Your task to perform on an android device: open app "Walmart Shopping & Grocery" Image 0: 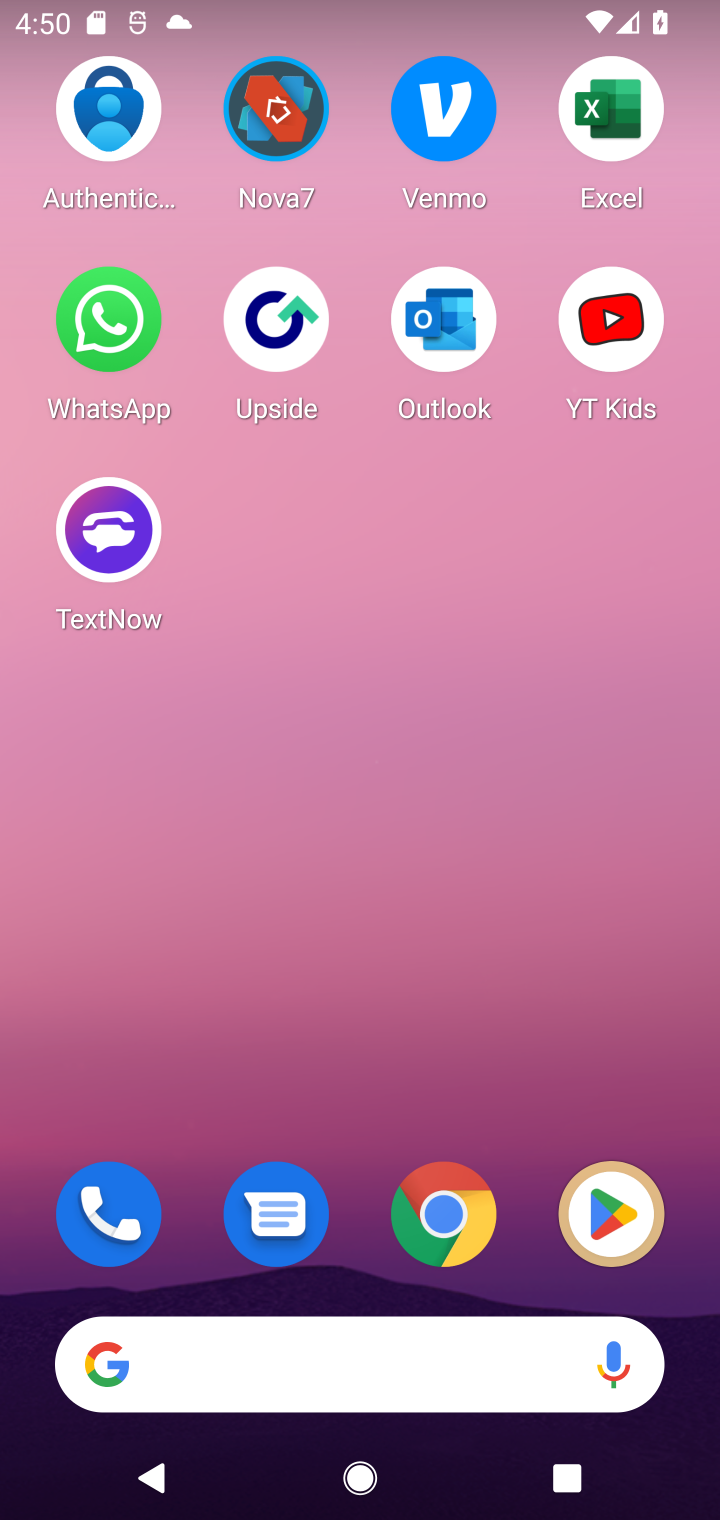
Step 0: click (618, 1224)
Your task to perform on an android device: open app "Walmart Shopping & Grocery" Image 1: 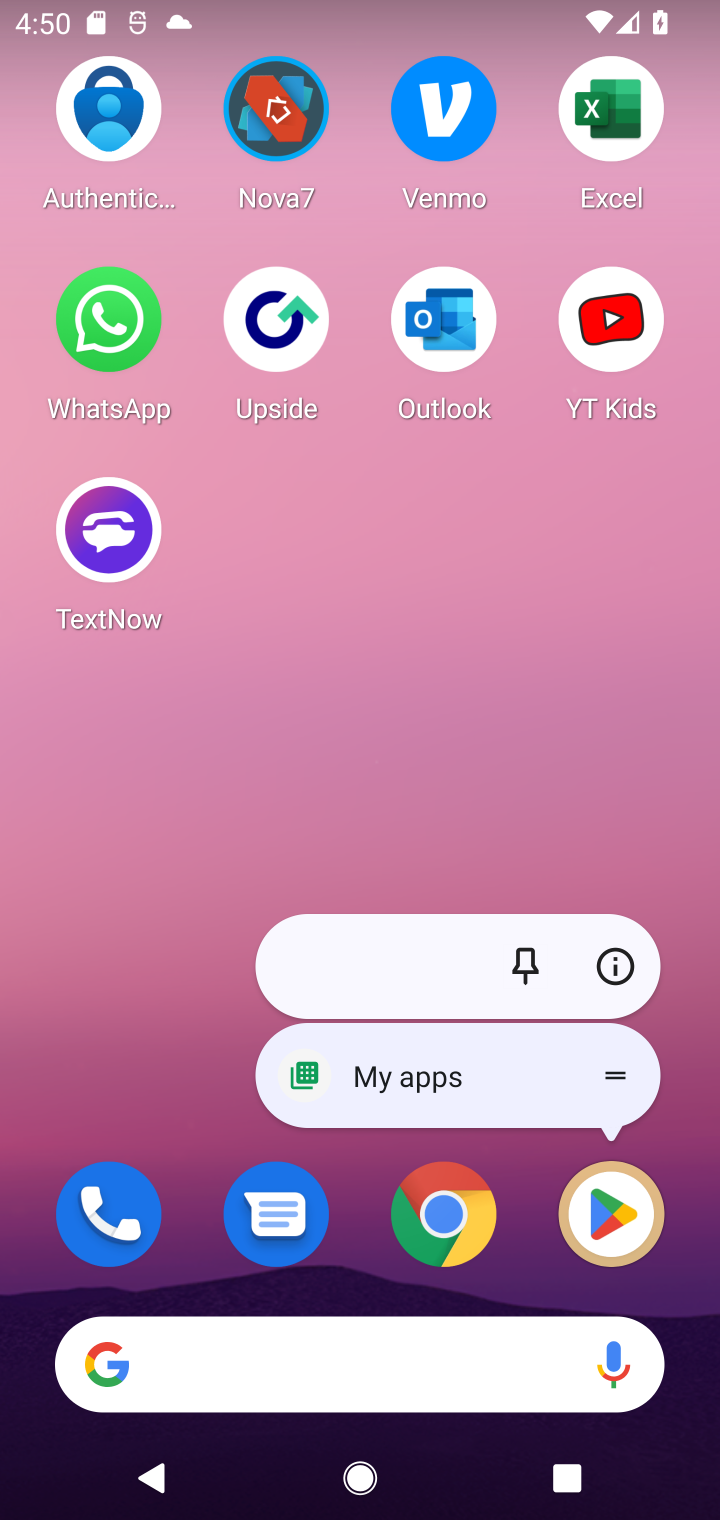
Step 1: click (618, 1224)
Your task to perform on an android device: open app "Walmart Shopping & Grocery" Image 2: 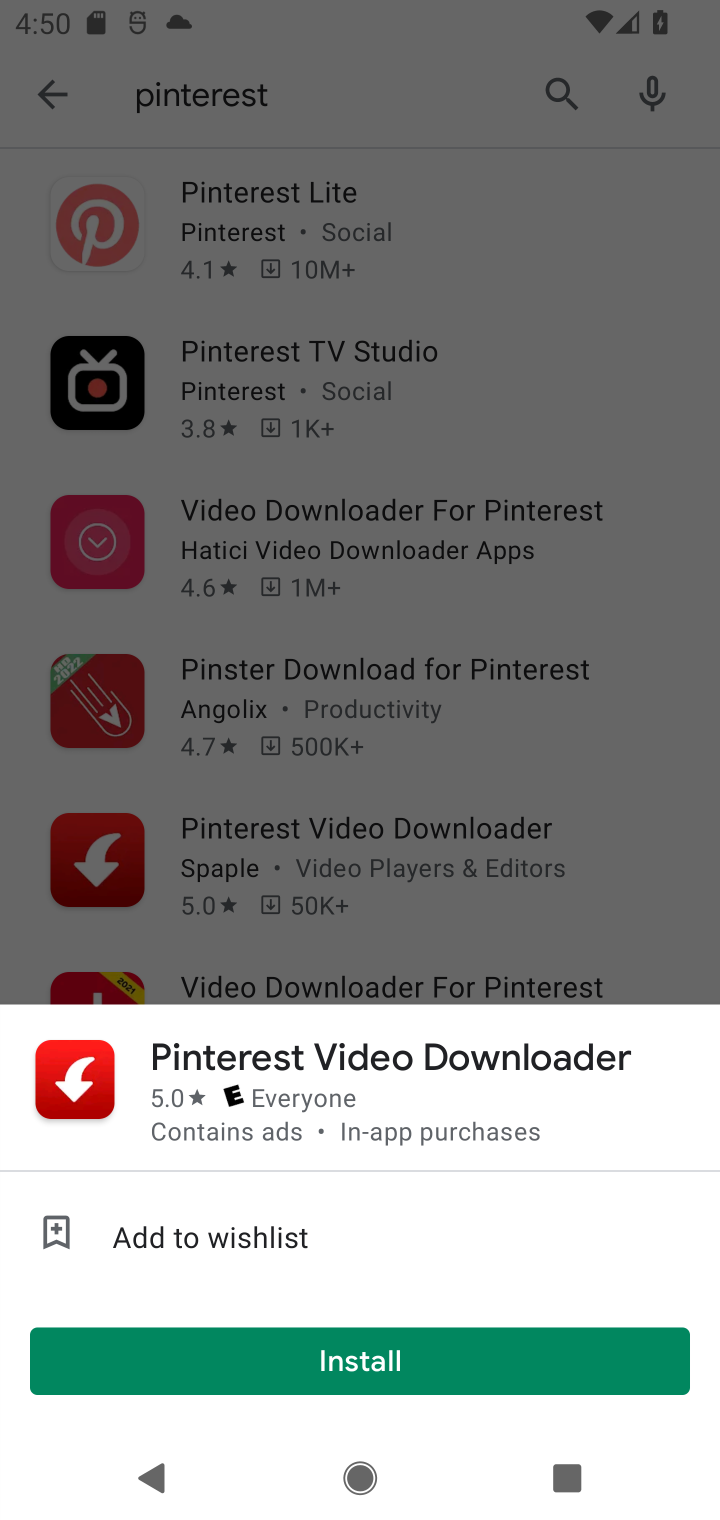
Step 2: click (56, 81)
Your task to perform on an android device: open app "Walmart Shopping & Grocery" Image 3: 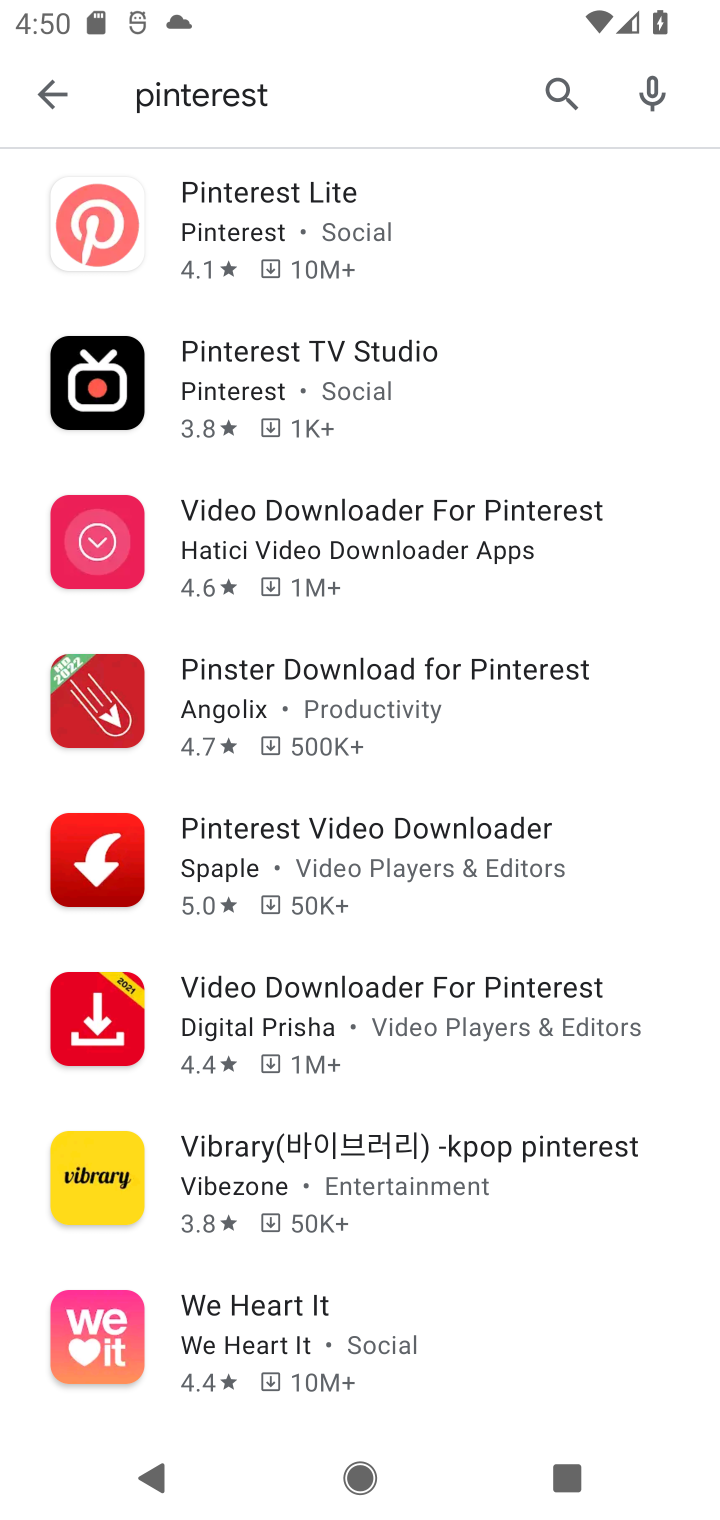
Step 3: click (245, 100)
Your task to perform on an android device: open app "Walmart Shopping & Grocery" Image 4: 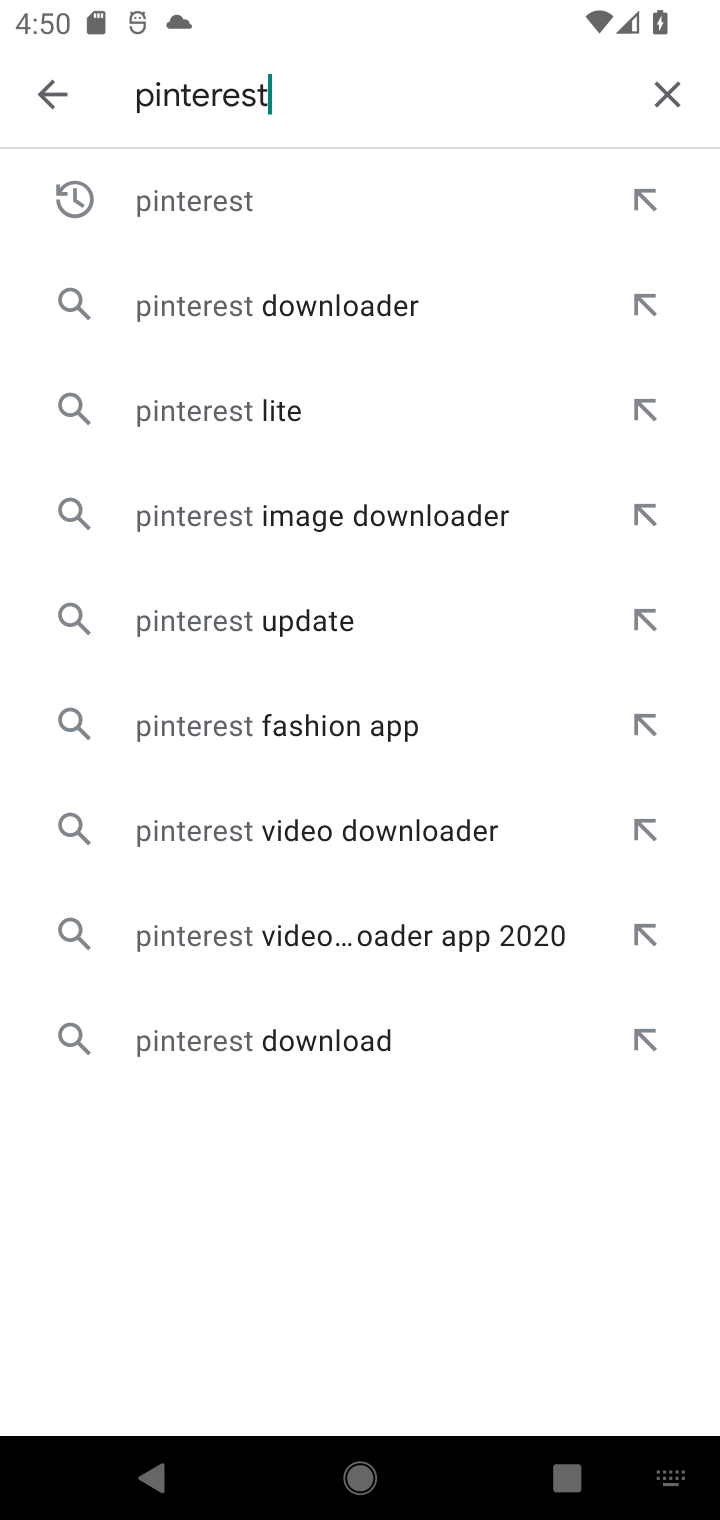
Step 4: click (653, 70)
Your task to perform on an android device: open app "Walmart Shopping & Grocery" Image 5: 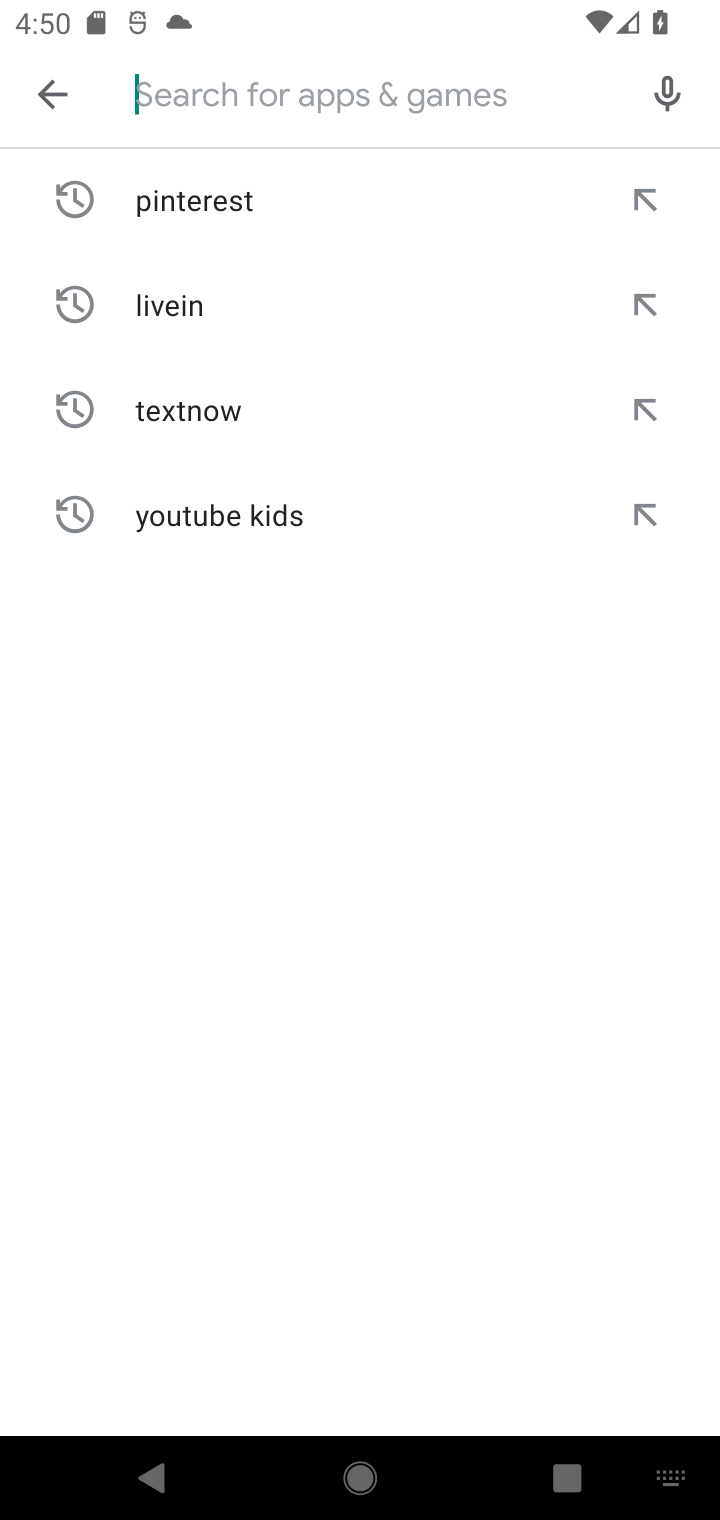
Step 5: type "Walmart"
Your task to perform on an android device: open app "Walmart Shopping & Grocery" Image 6: 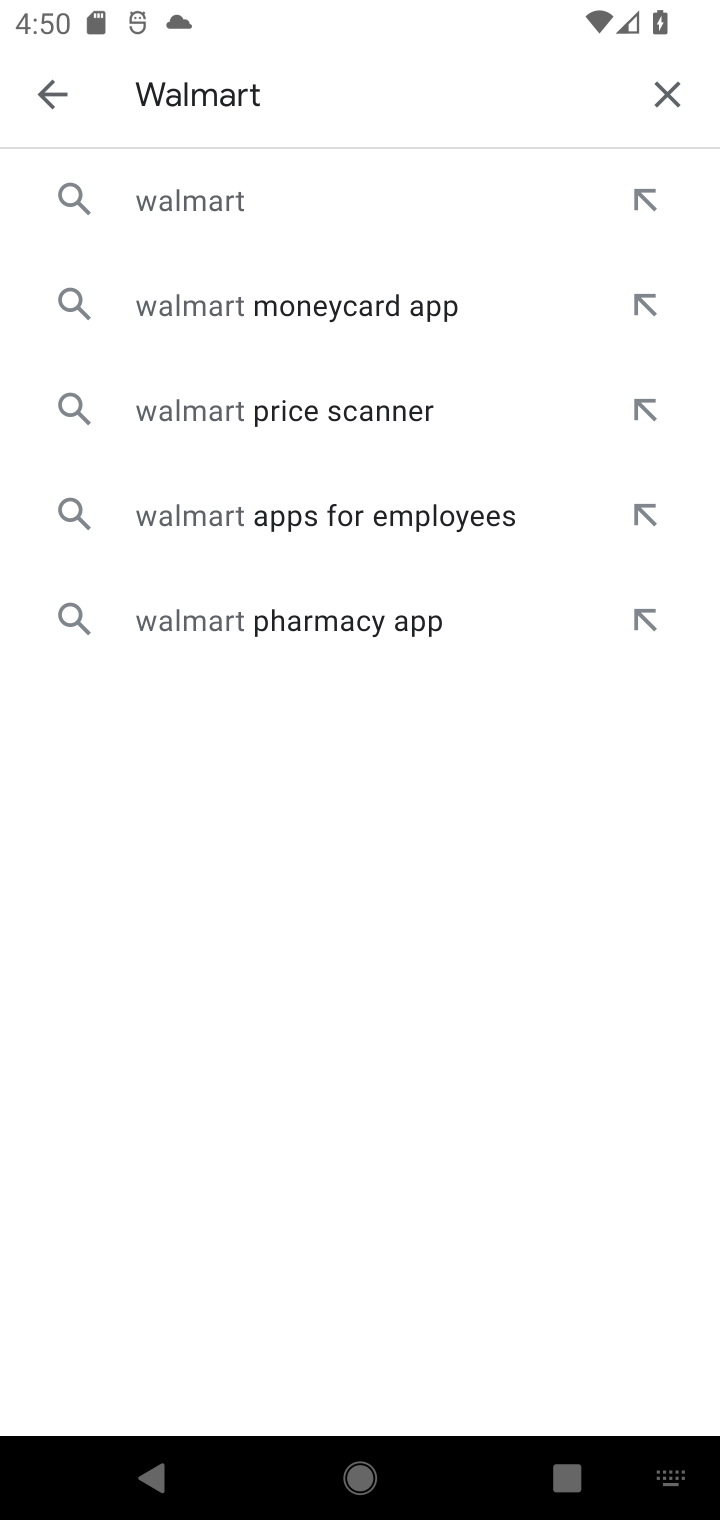
Step 6: click (241, 183)
Your task to perform on an android device: open app "Walmart Shopping & Grocery" Image 7: 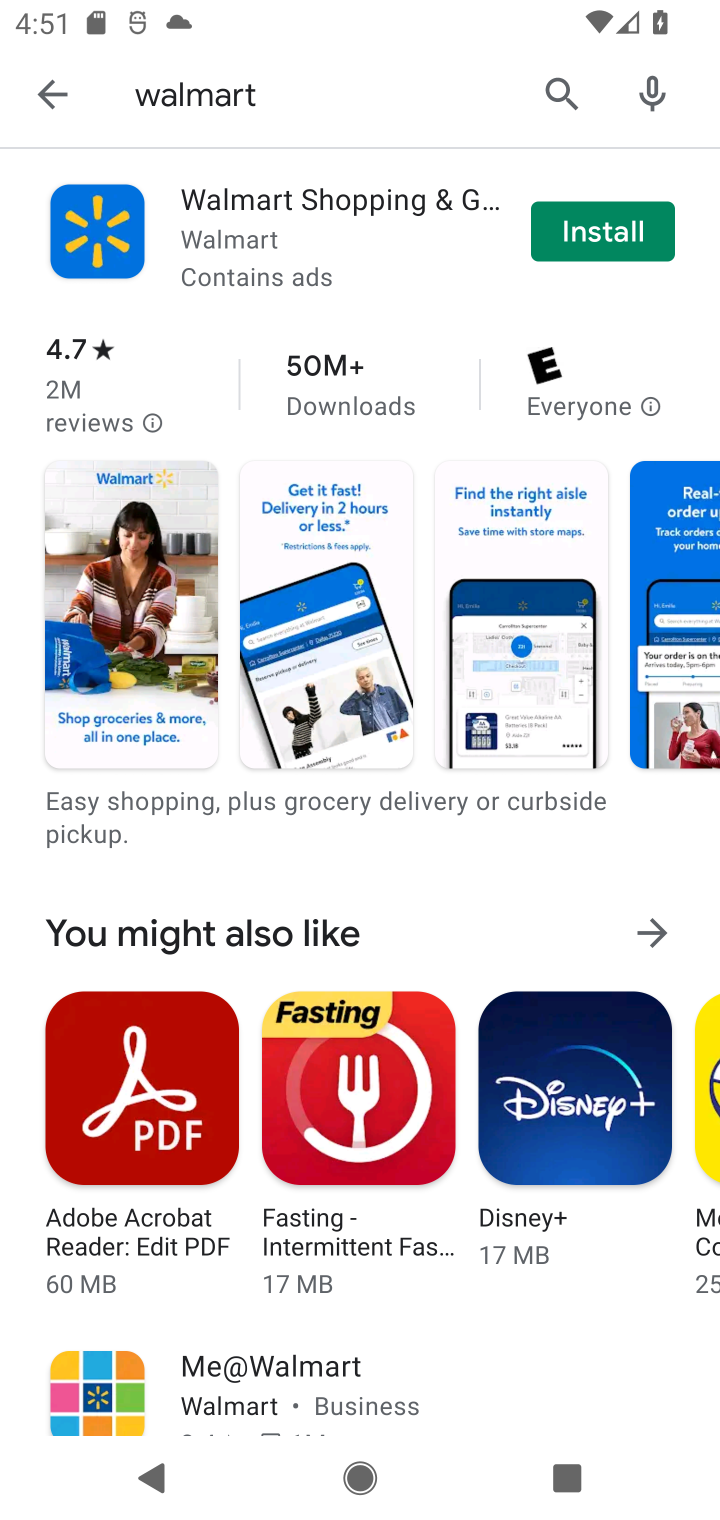
Step 7: task complete